Your task to perform on an android device: What's the news this weekend? Image 0: 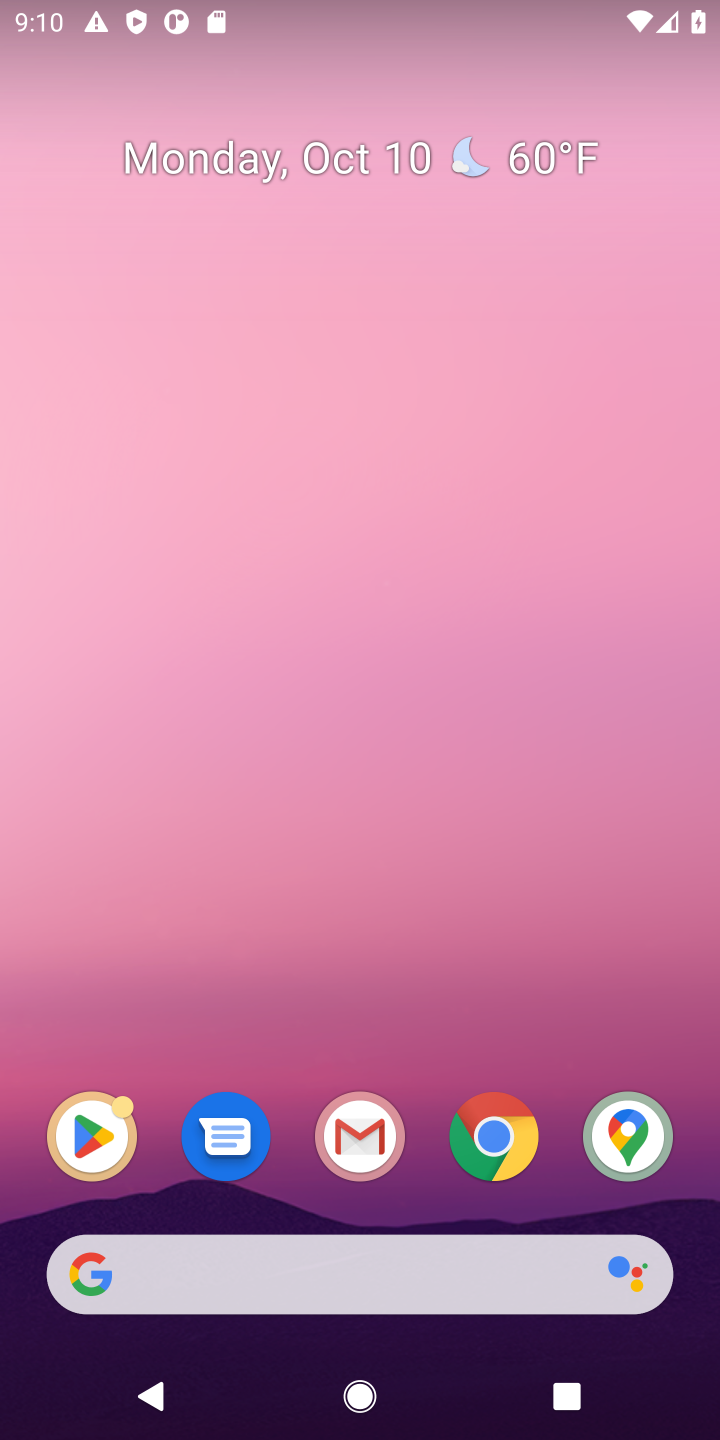
Step 0: click (234, 1253)
Your task to perform on an android device: What's the news this weekend? Image 1: 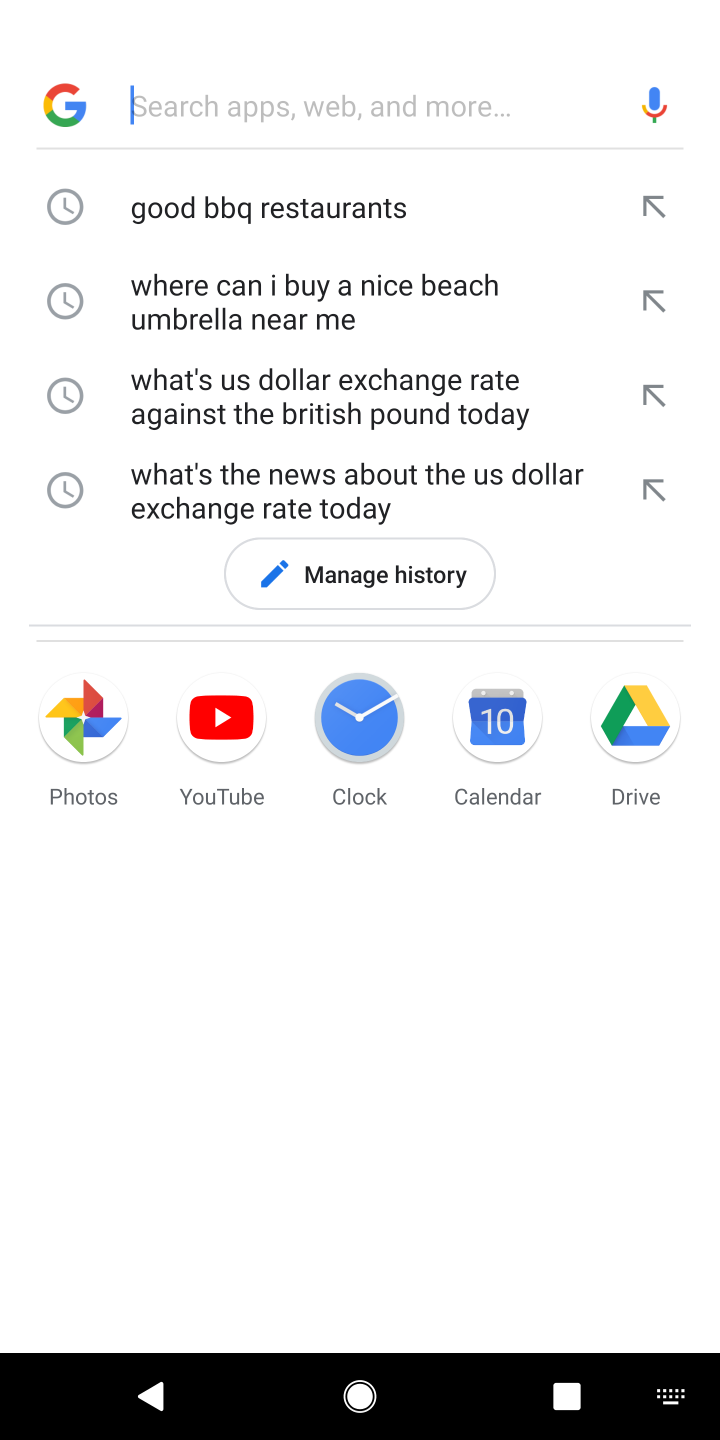
Step 1: type "What's the news this weekend?"
Your task to perform on an android device: What's the news this weekend? Image 2: 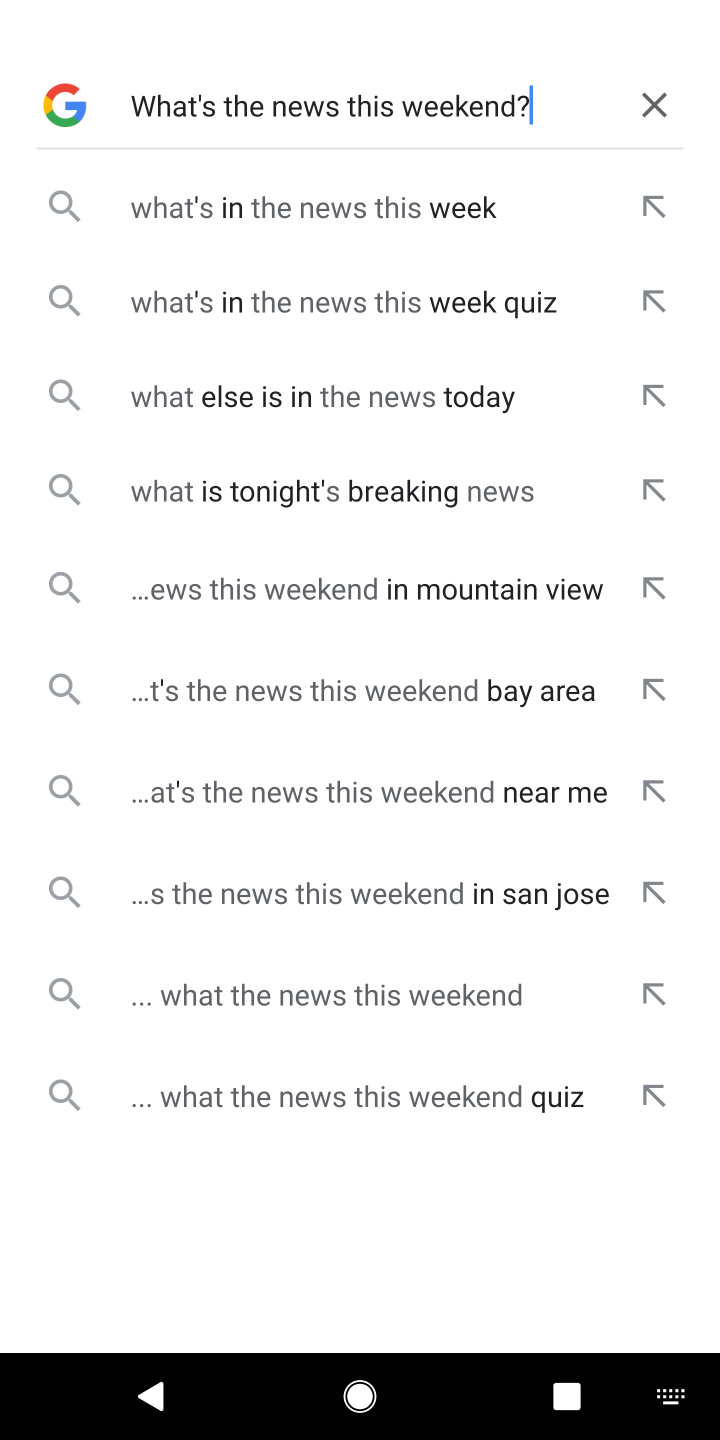
Step 2: click (349, 211)
Your task to perform on an android device: What's the news this weekend? Image 3: 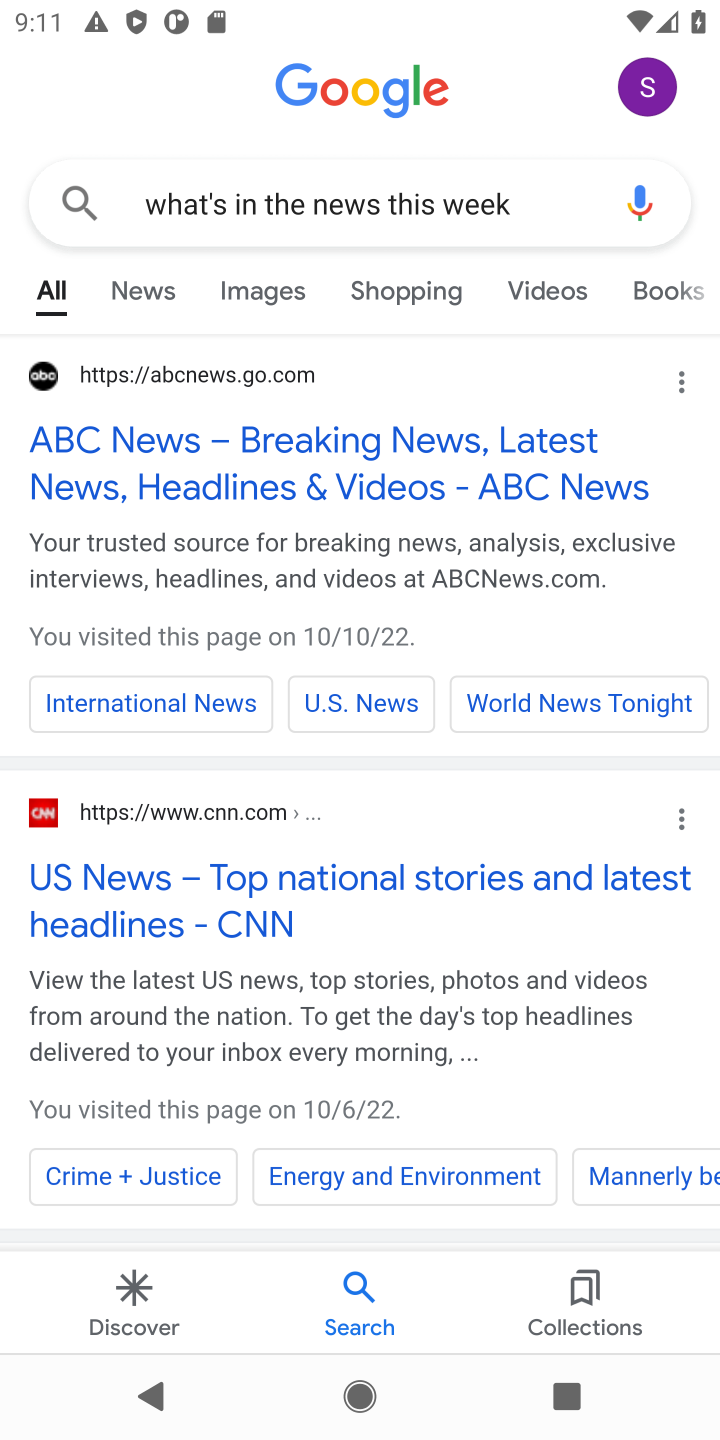
Step 3: click (318, 442)
Your task to perform on an android device: What's the news this weekend? Image 4: 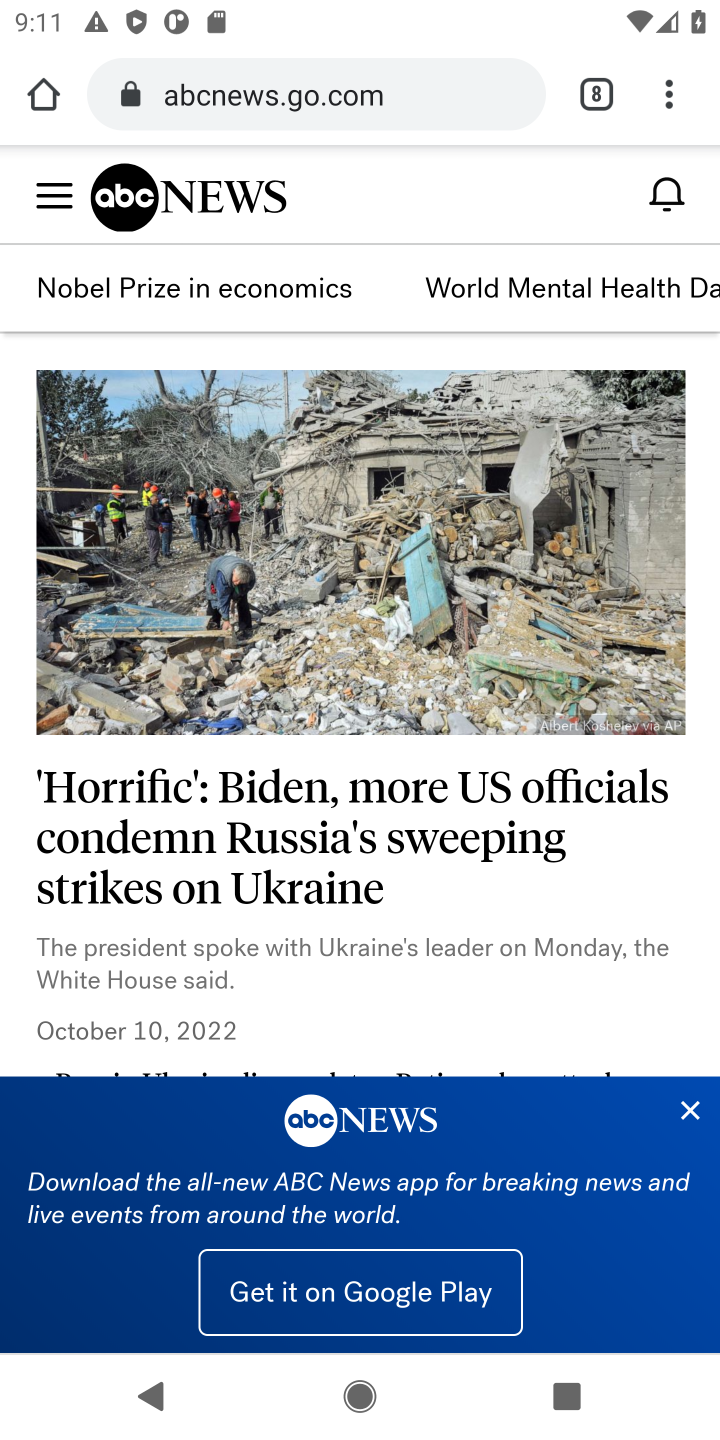
Step 4: click (694, 1113)
Your task to perform on an android device: What's the news this weekend? Image 5: 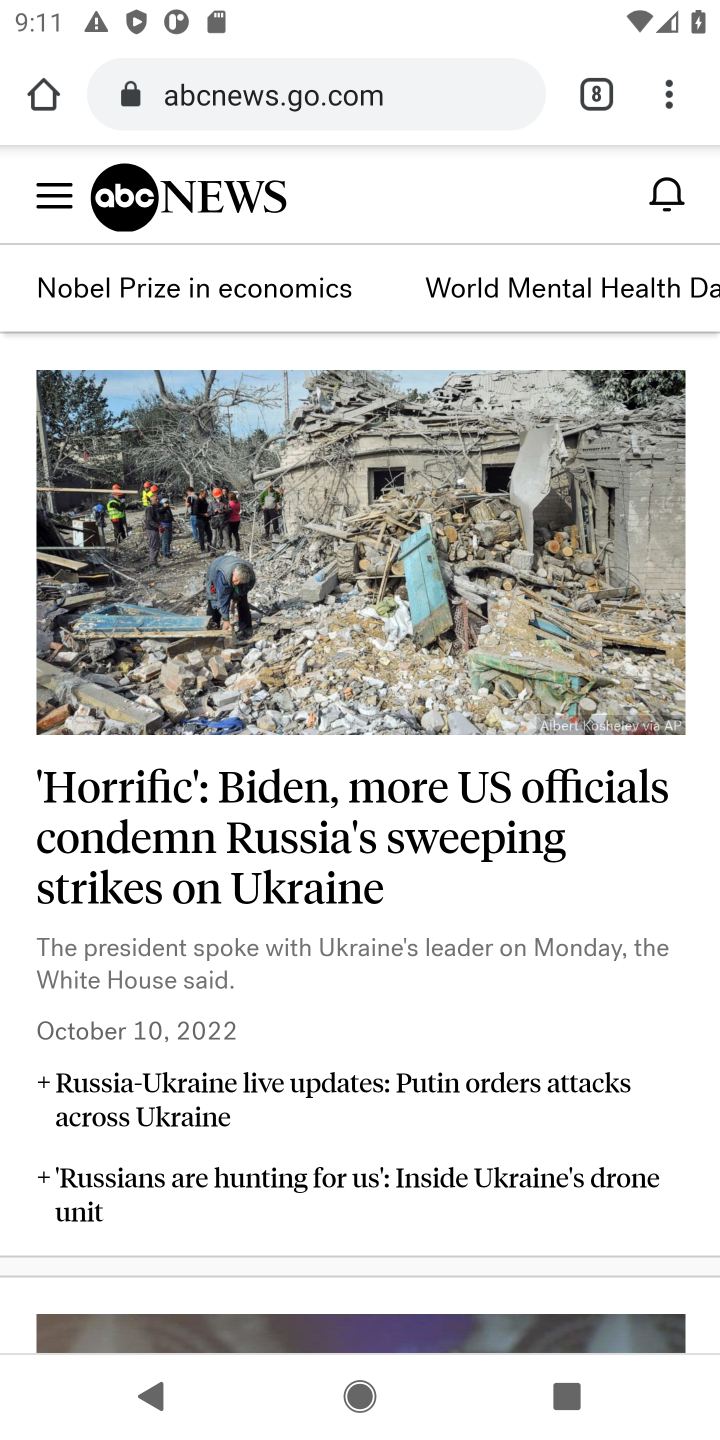
Step 5: task complete